Your task to perform on an android device: turn on javascript in the chrome app Image 0: 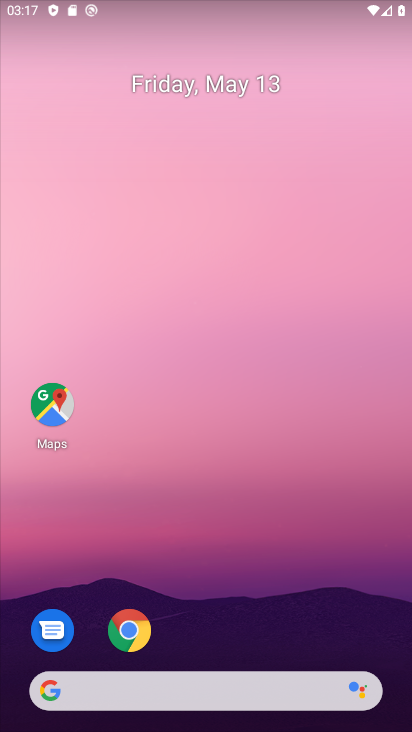
Step 0: click (147, 621)
Your task to perform on an android device: turn on javascript in the chrome app Image 1: 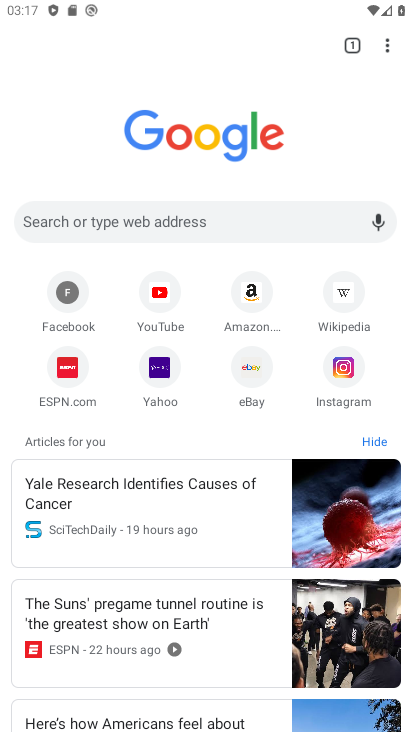
Step 1: click (387, 56)
Your task to perform on an android device: turn on javascript in the chrome app Image 2: 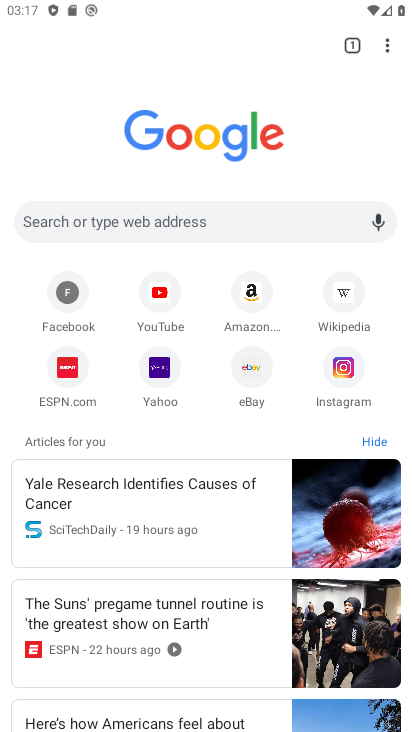
Step 2: drag from (383, 37) to (211, 389)
Your task to perform on an android device: turn on javascript in the chrome app Image 3: 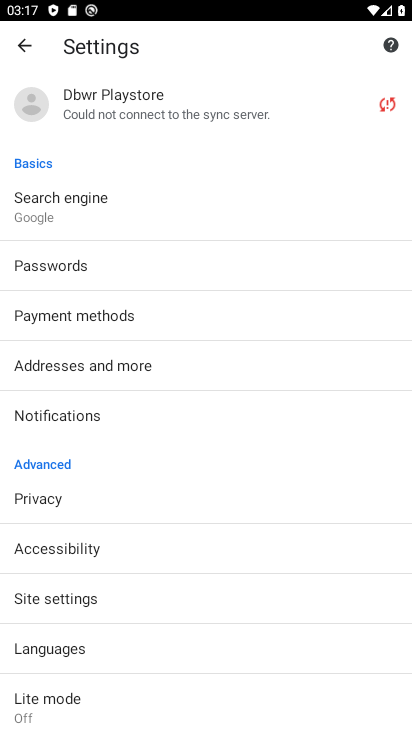
Step 3: click (79, 603)
Your task to perform on an android device: turn on javascript in the chrome app Image 4: 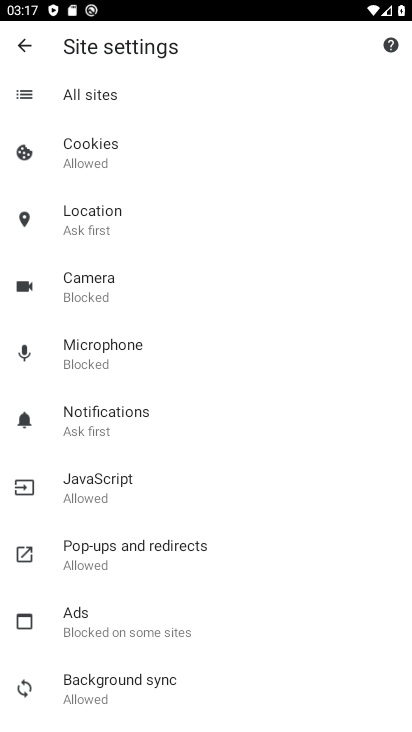
Step 4: click (126, 497)
Your task to perform on an android device: turn on javascript in the chrome app Image 5: 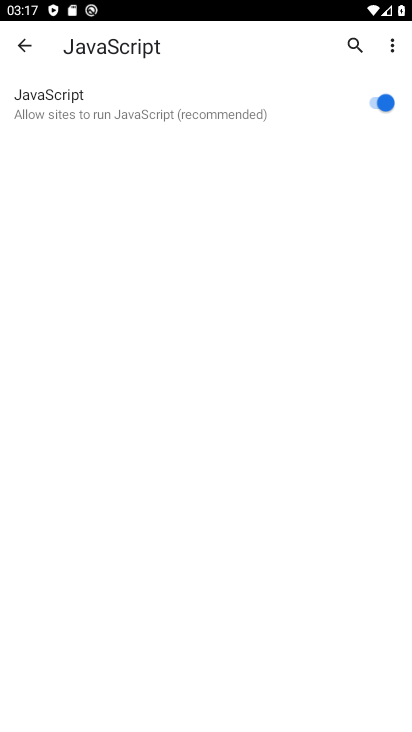
Step 5: task complete